Your task to perform on an android device: change alarm snooze length Image 0: 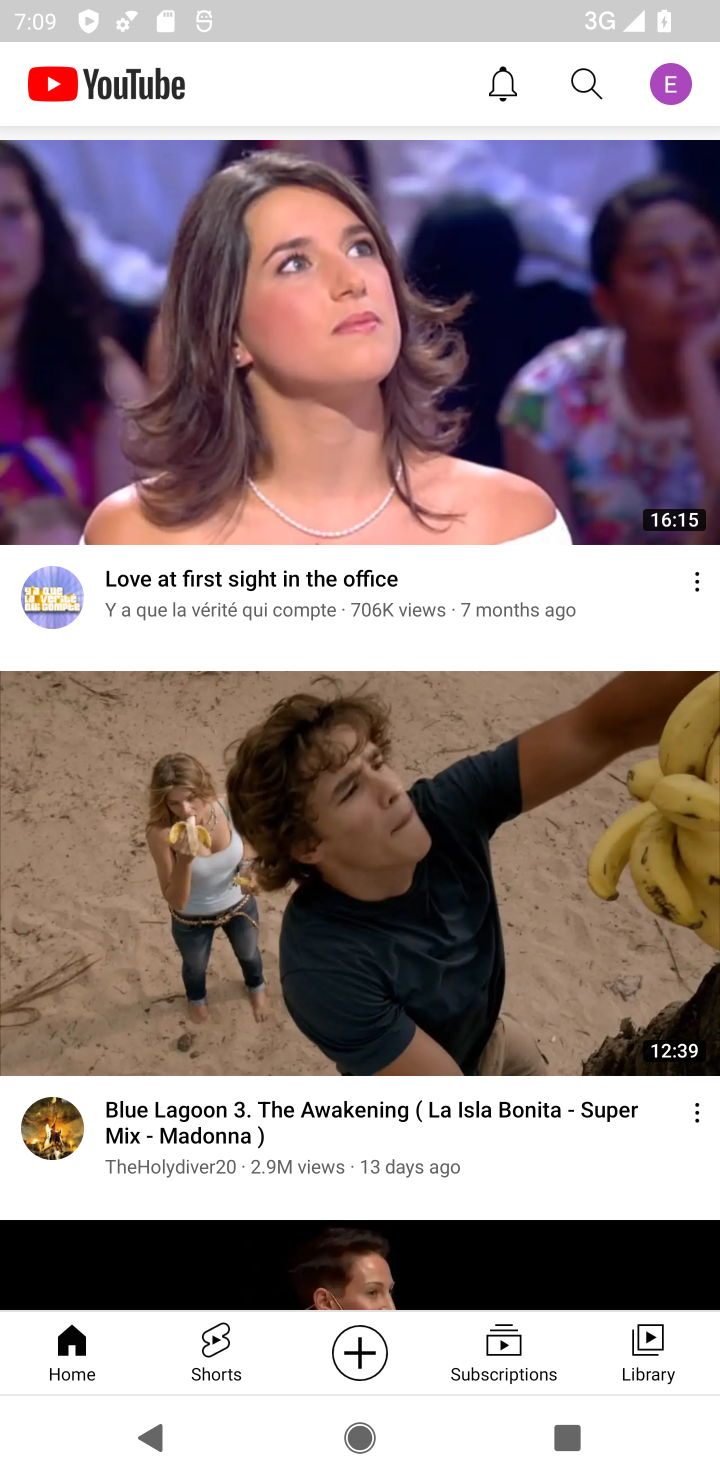
Step 0: press home button
Your task to perform on an android device: change alarm snooze length Image 1: 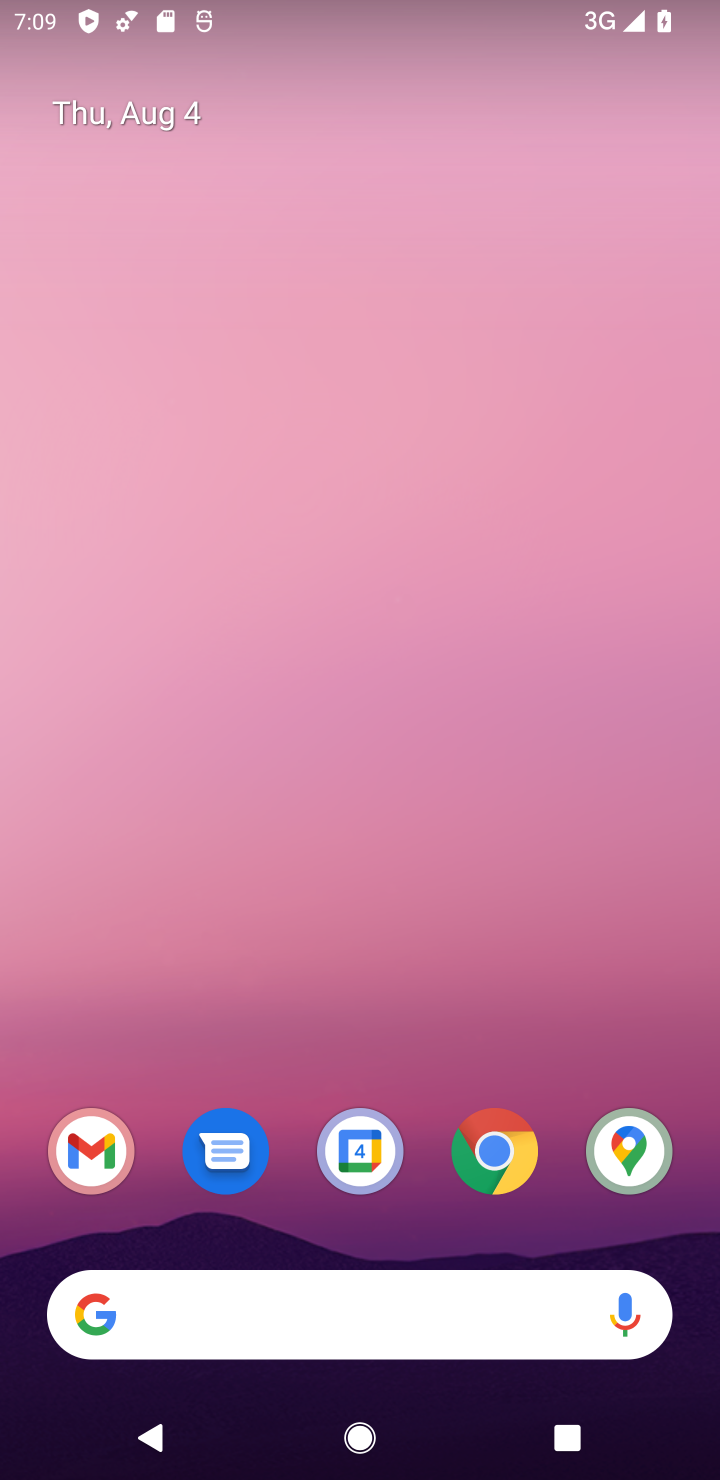
Step 1: drag from (560, 1069) to (527, 260)
Your task to perform on an android device: change alarm snooze length Image 2: 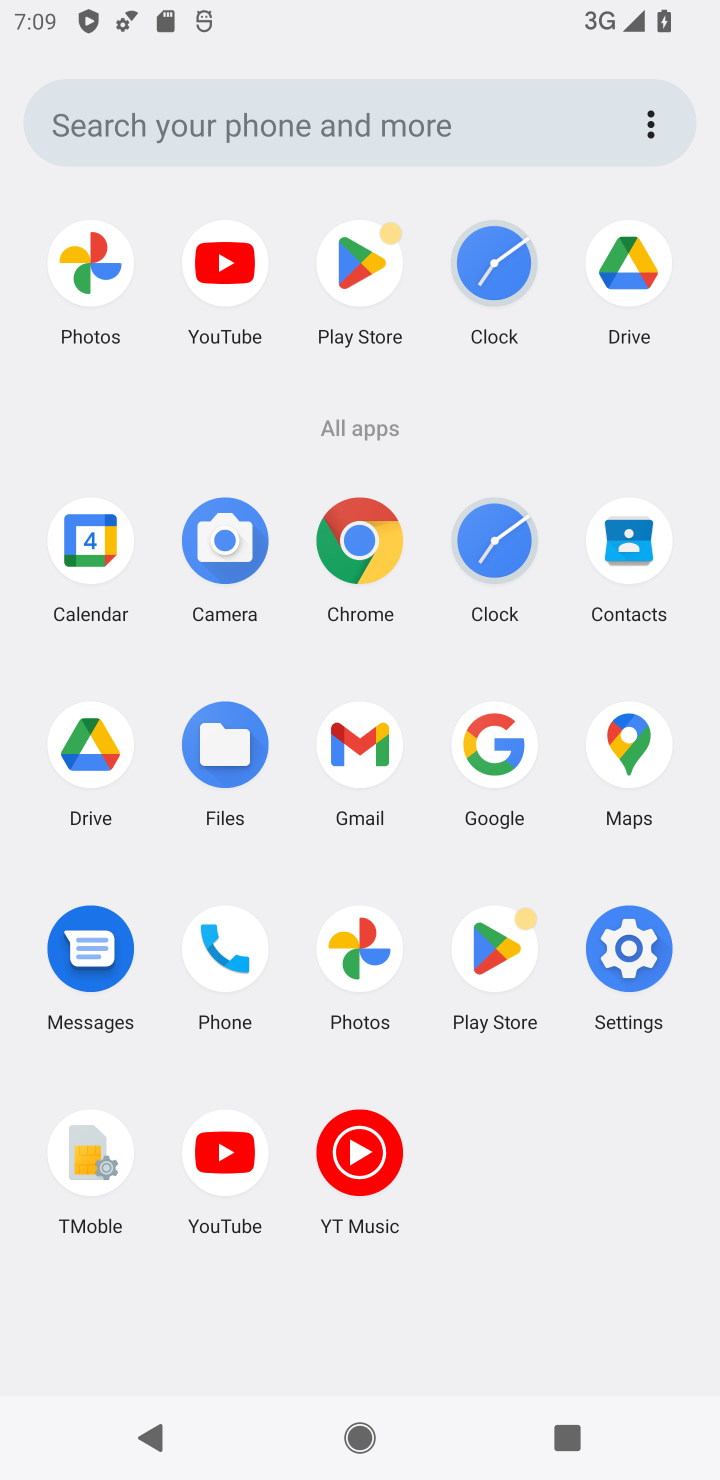
Step 2: click (500, 276)
Your task to perform on an android device: change alarm snooze length Image 3: 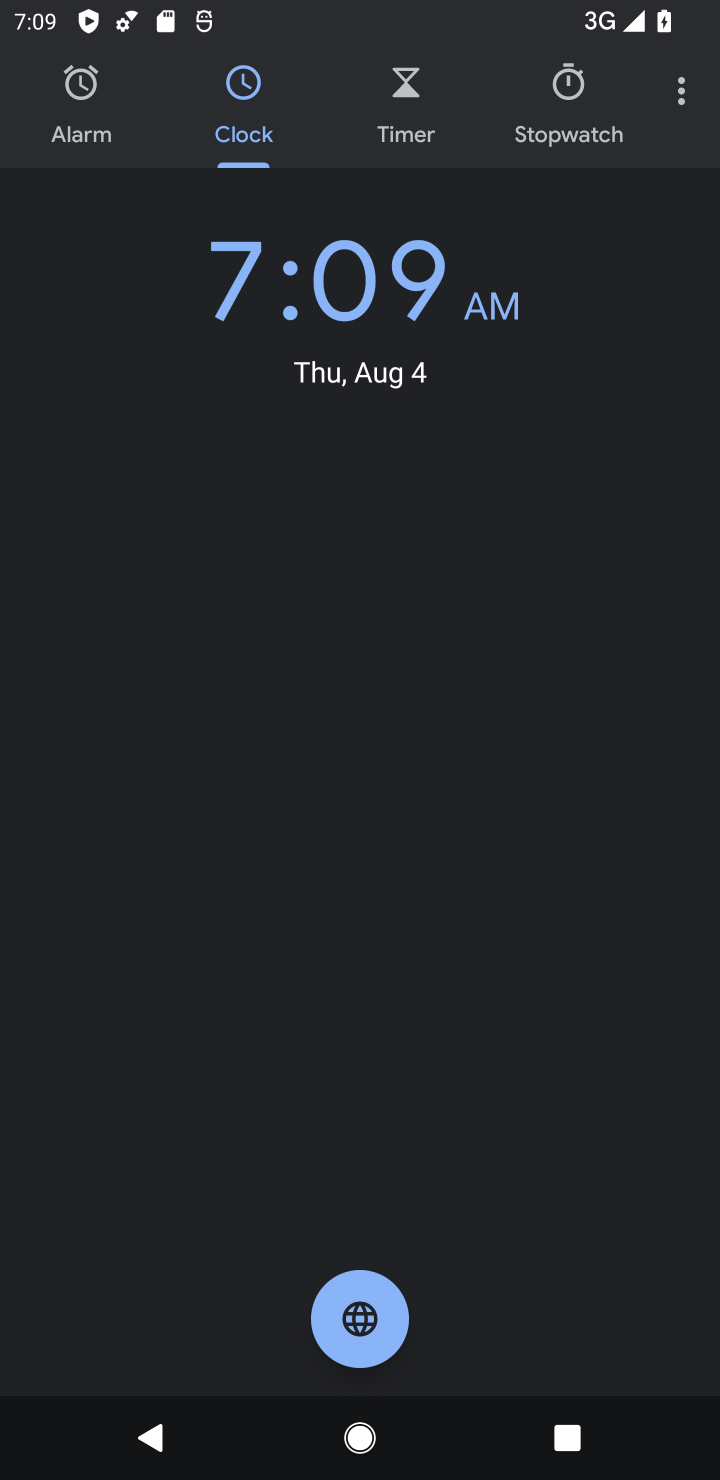
Step 3: click (686, 103)
Your task to perform on an android device: change alarm snooze length Image 4: 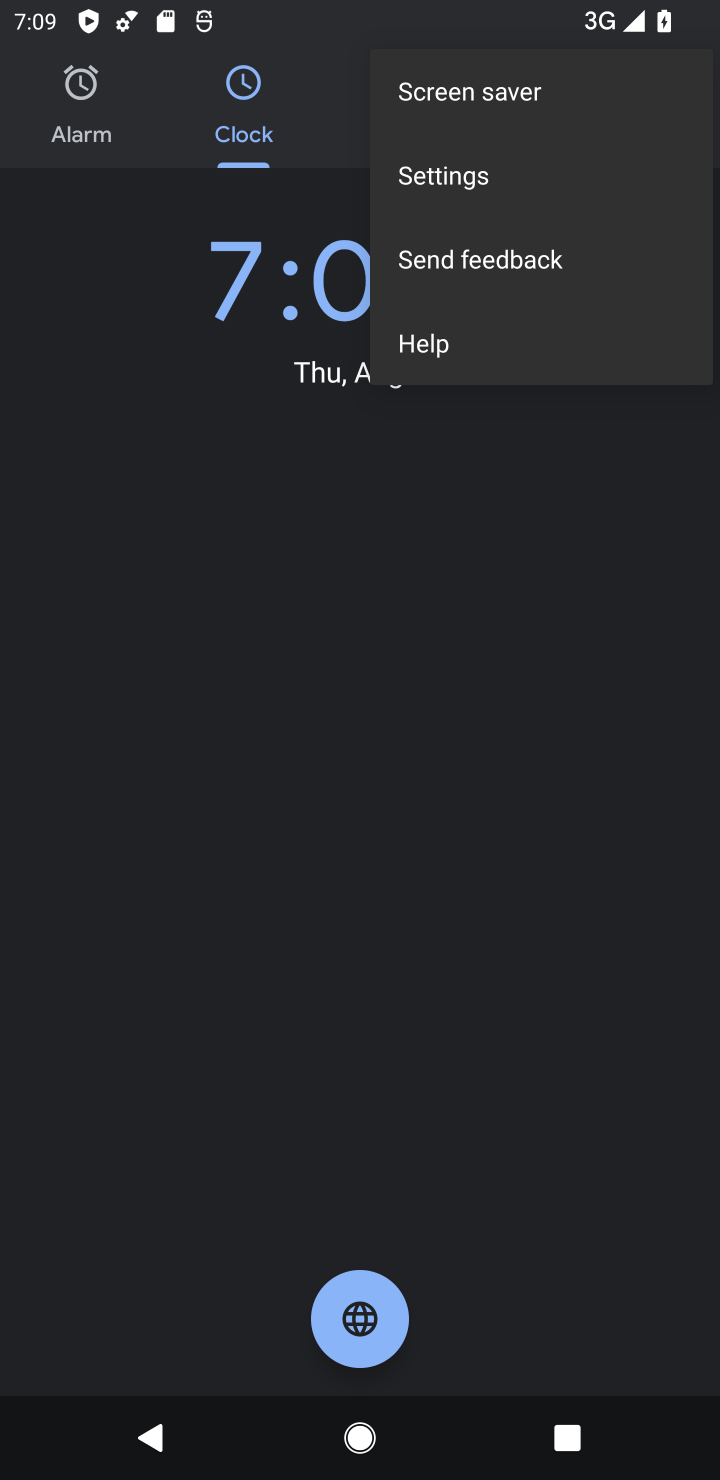
Step 4: click (535, 173)
Your task to perform on an android device: change alarm snooze length Image 5: 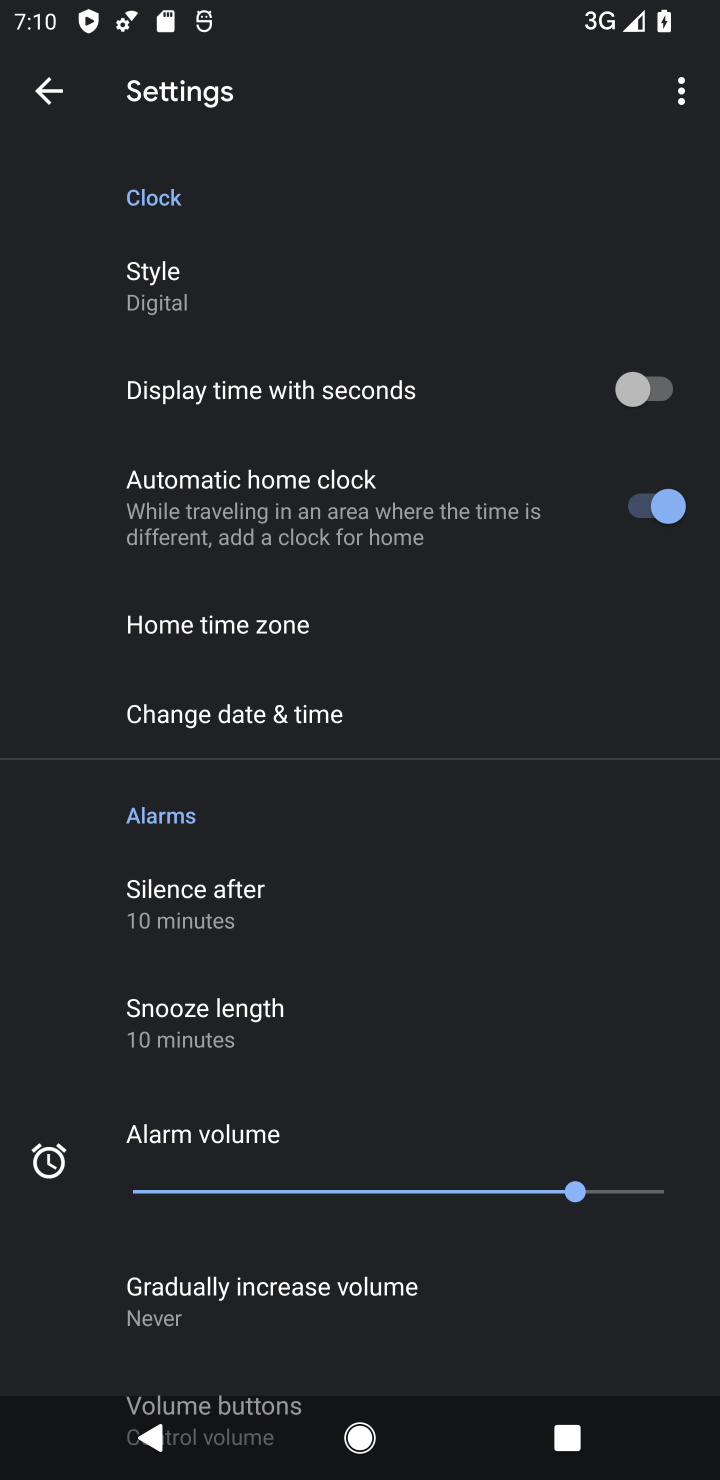
Step 5: click (298, 1009)
Your task to perform on an android device: change alarm snooze length Image 6: 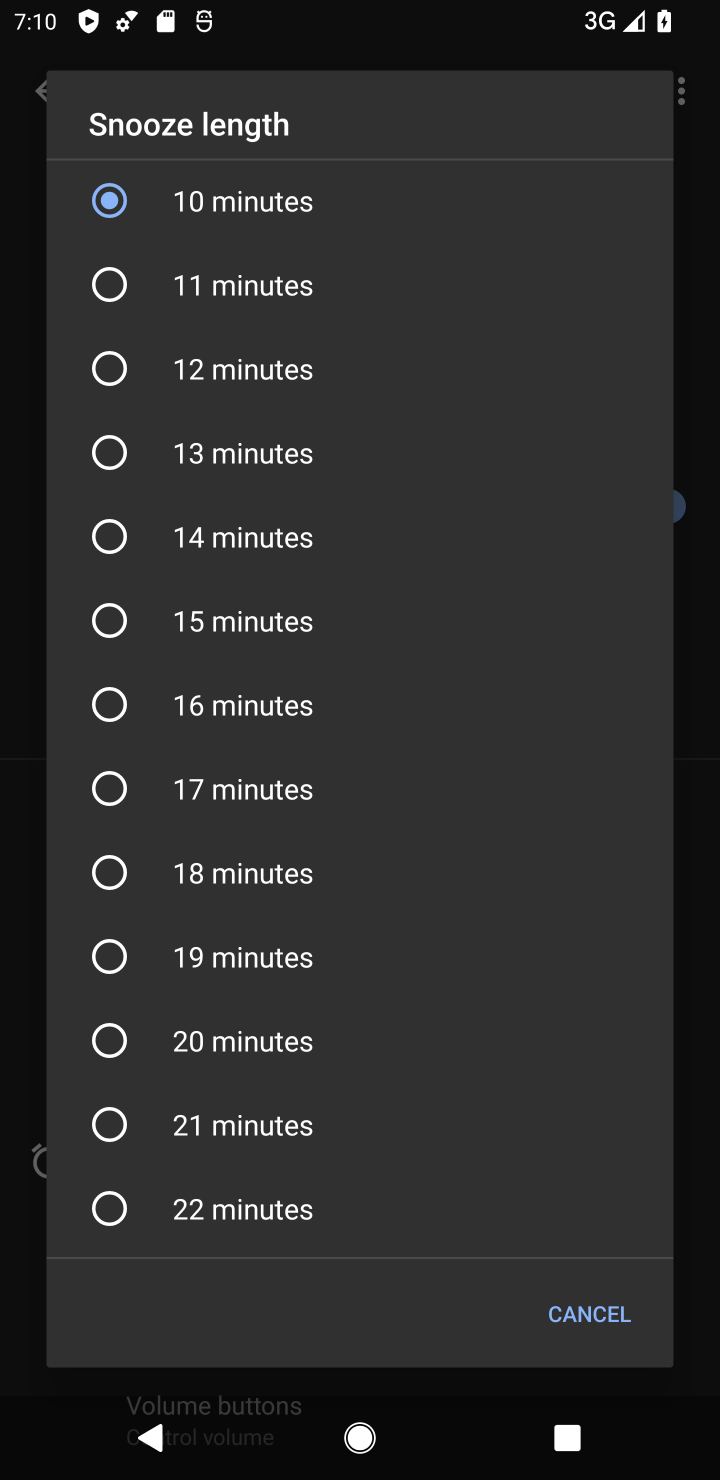
Step 6: click (282, 975)
Your task to perform on an android device: change alarm snooze length Image 7: 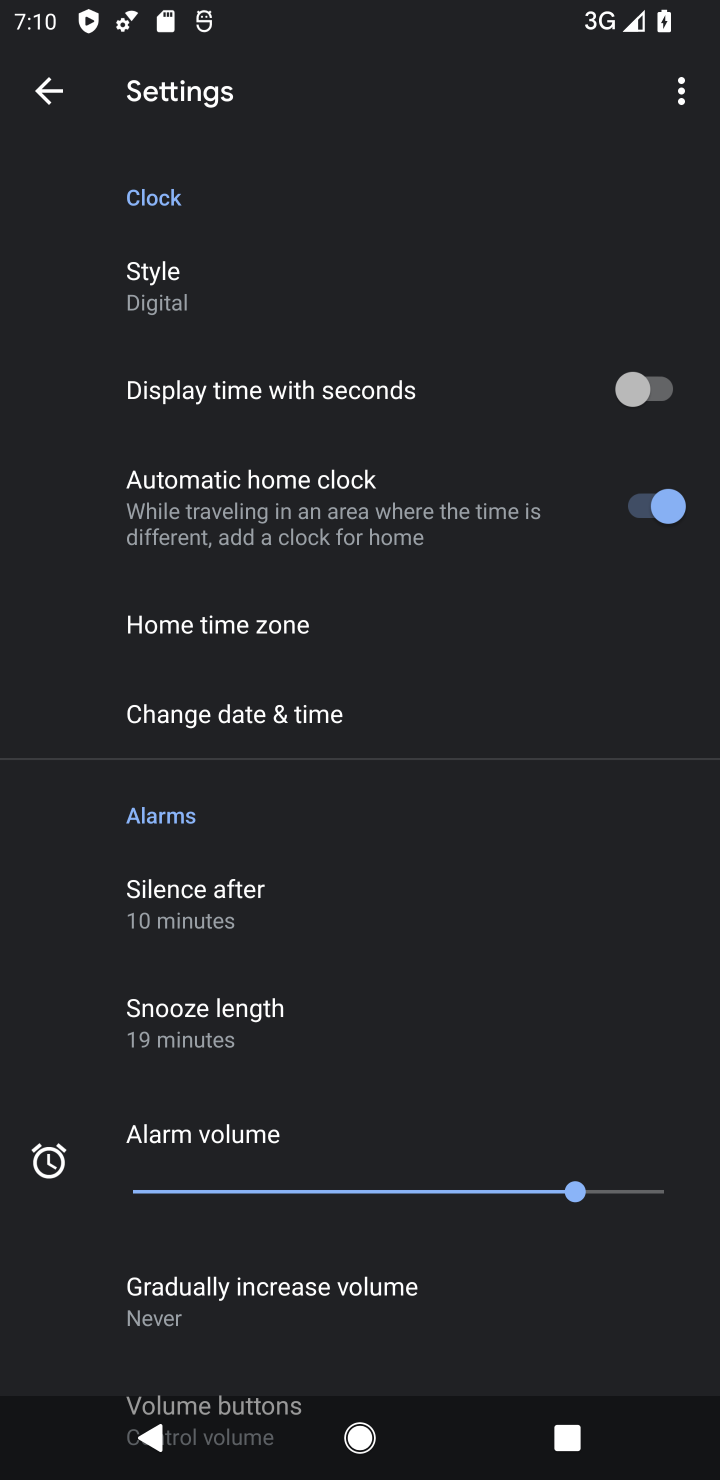
Step 7: task complete